Your task to perform on an android device: Check the news Image 0: 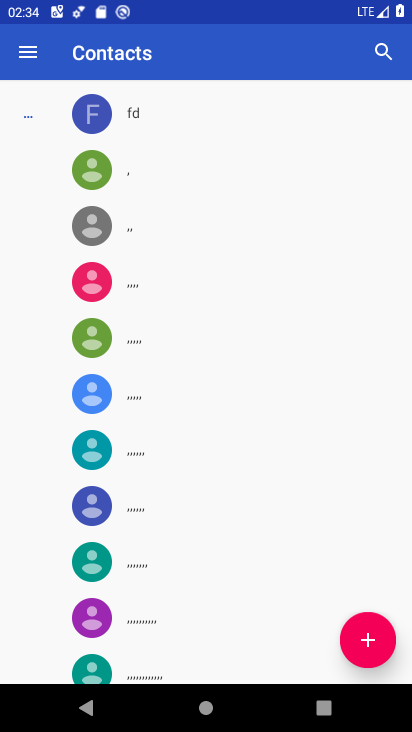
Step 0: press home button
Your task to perform on an android device: Check the news Image 1: 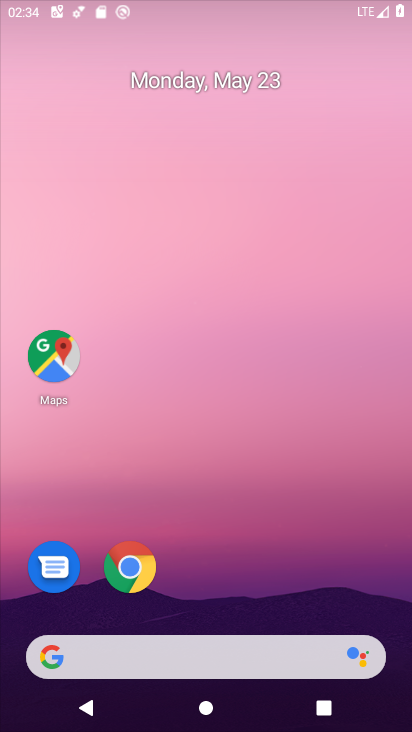
Step 1: drag from (274, 495) to (252, 197)
Your task to perform on an android device: Check the news Image 2: 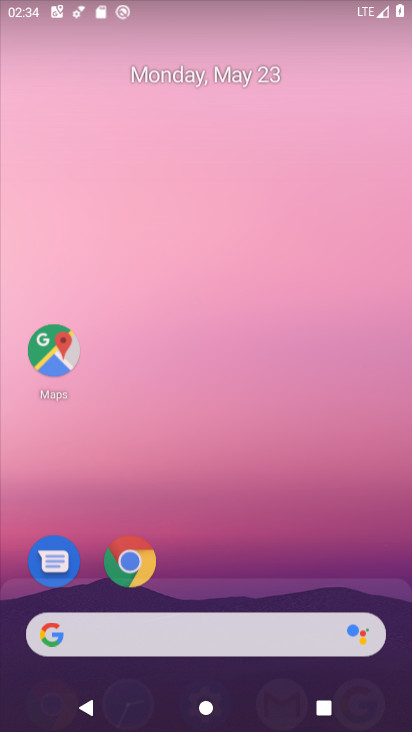
Step 2: drag from (267, 553) to (234, 200)
Your task to perform on an android device: Check the news Image 3: 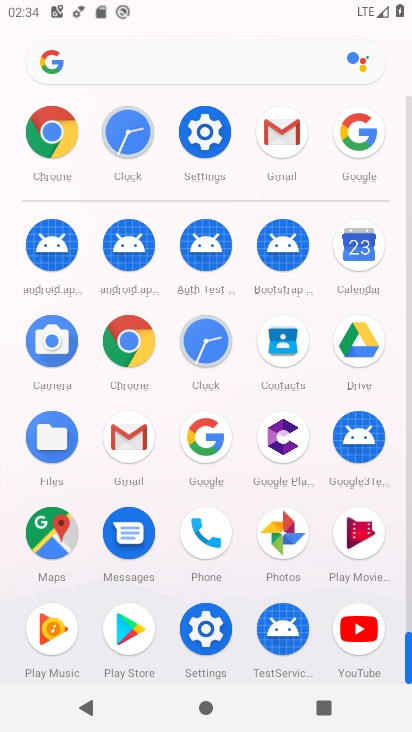
Step 3: click (221, 452)
Your task to perform on an android device: Check the news Image 4: 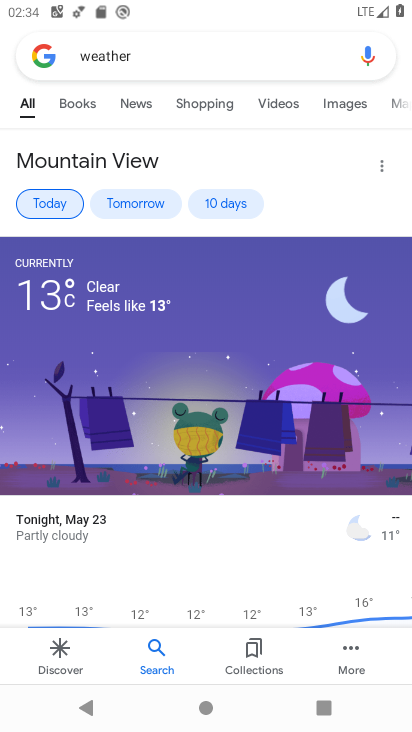
Step 4: click (49, 663)
Your task to perform on an android device: Check the news Image 5: 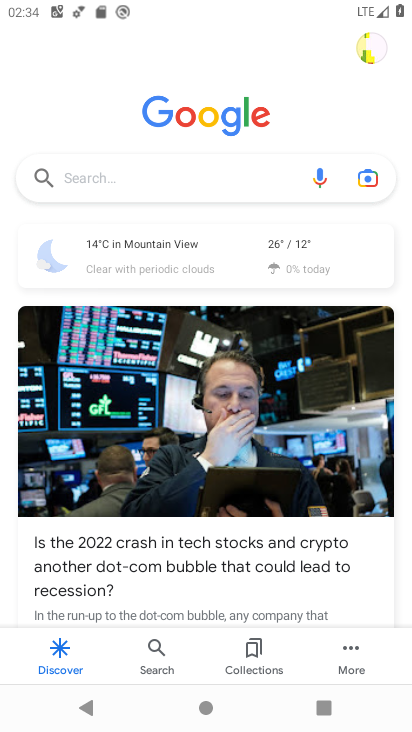
Step 5: task complete